Your task to perform on an android device: turn on javascript in the chrome app Image 0: 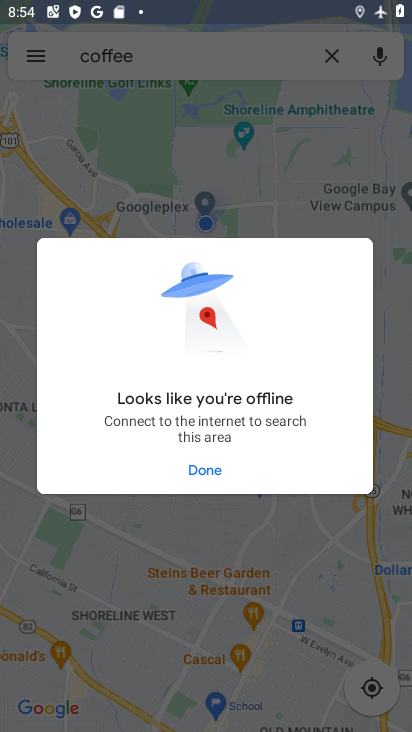
Step 0: click (206, 456)
Your task to perform on an android device: turn on javascript in the chrome app Image 1: 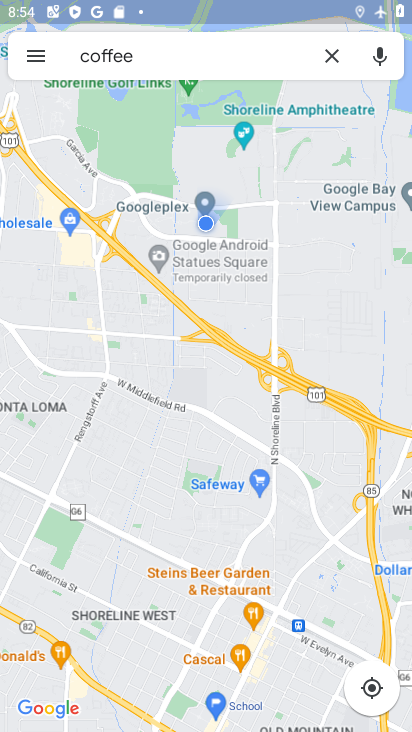
Step 1: press home button
Your task to perform on an android device: turn on javascript in the chrome app Image 2: 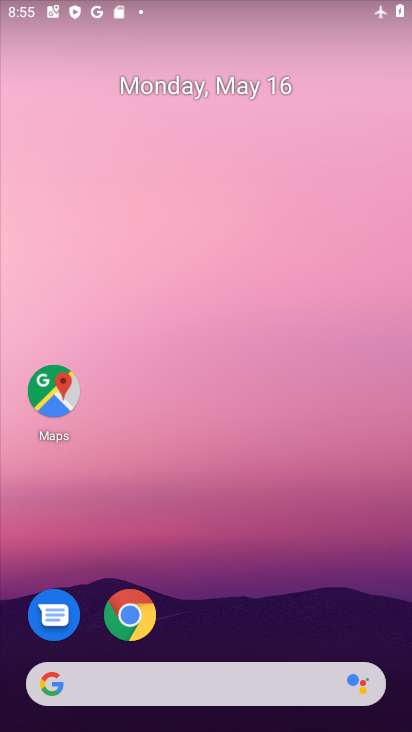
Step 2: click (110, 623)
Your task to perform on an android device: turn on javascript in the chrome app Image 3: 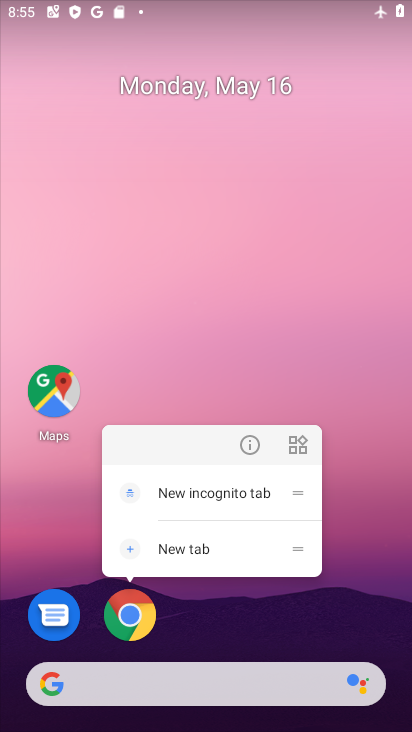
Step 3: click (131, 610)
Your task to perform on an android device: turn on javascript in the chrome app Image 4: 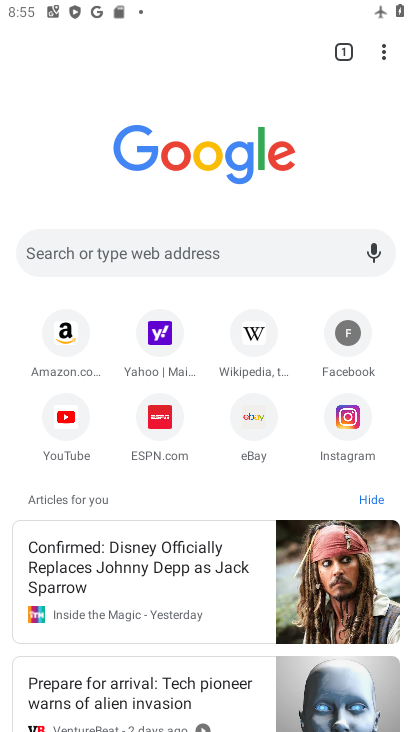
Step 4: click (384, 54)
Your task to perform on an android device: turn on javascript in the chrome app Image 5: 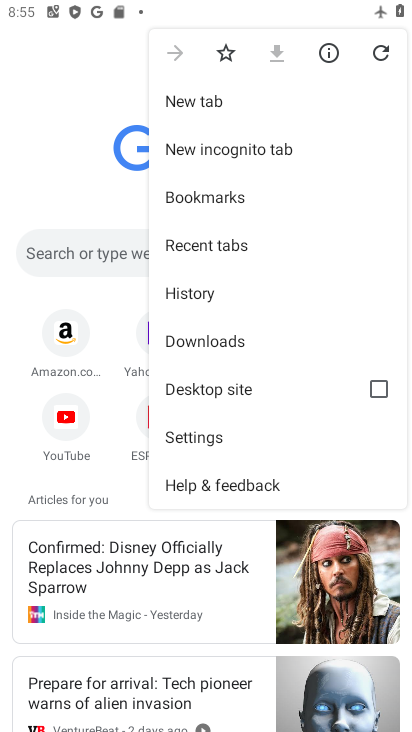
Step 5: click (212, 436)
Your task to perform on an android device: turn on javascript in the chrome app Image 6: 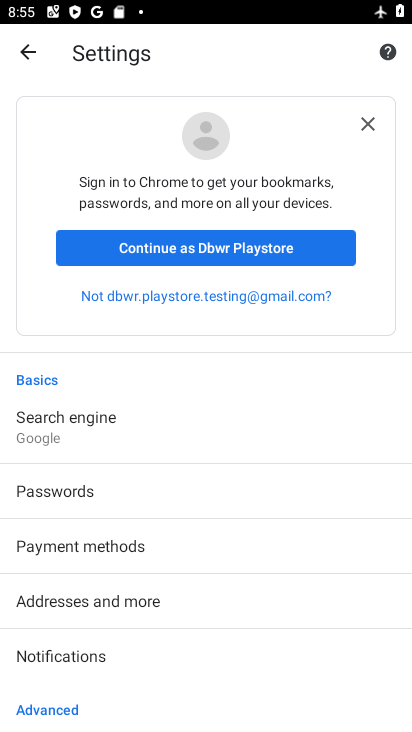
Step 6: drag from (0, 729) to (208, 211)
Your task to perform on an android device: turn on javascript in the chrome app Image 7: 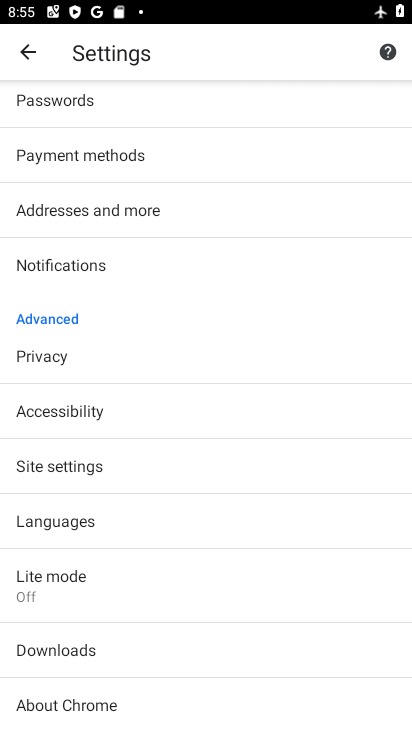
Step 7: click (93, 473)
Your task to perform on an android device: turn on javascript in the chrome app Image 8: 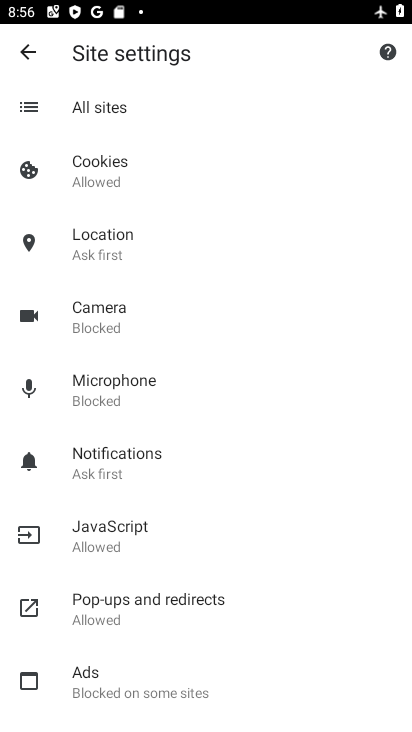
Step 8: click (175, 533)
Your task to perform on an android device: turn on javascript in the chrome app Image 9: 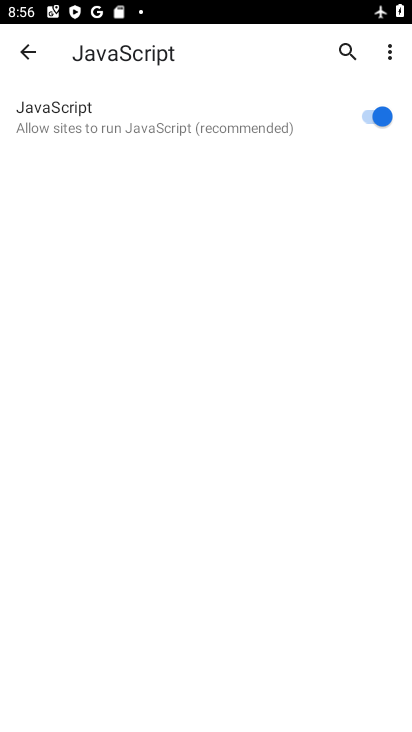
Step 9: task complete